Your task to perform on an android device: set the stopwatch Image 0: 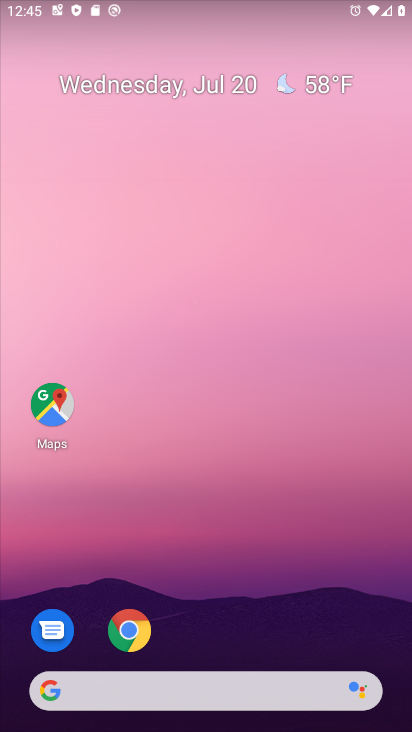
Step 0: drag from (185, 688) to (224, 116)
Your task to perform on an android device: set the stopwatch Image 1: 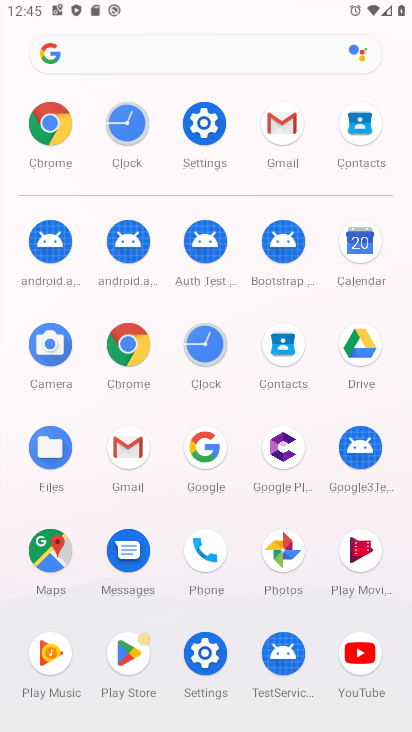
Step 1: click (209, 349)
Your task to perform on an android device: set the stopwatch Image 2: 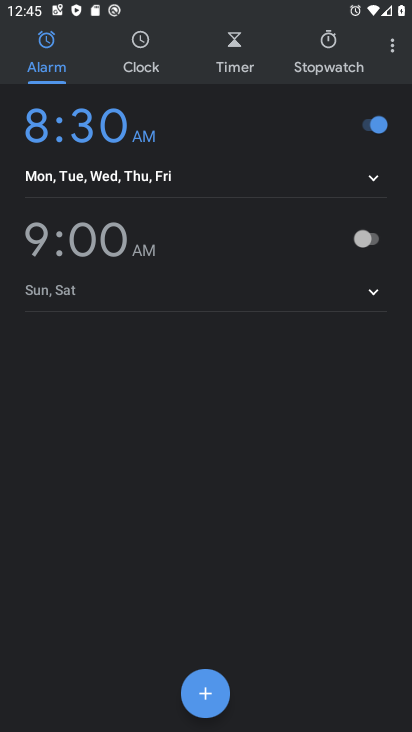
Step 2: click (320, 65)
Your task to perform on an android device: set the stopwatch Image 3: 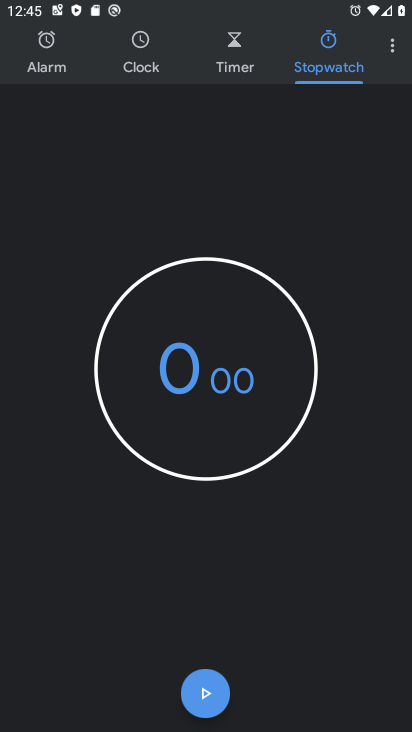
Step 3: click (198, 380)
Your task to perform on an android device: set the stopwatch Image 4: 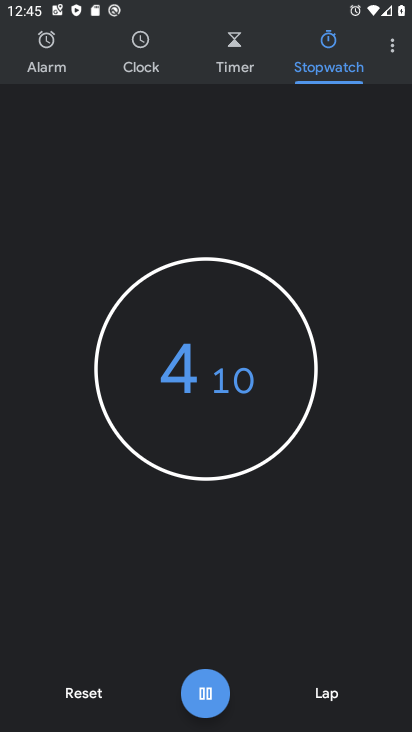
Step 4: click (212, 375)
Your task to perform on an android device: set the stopwatch Image 5: 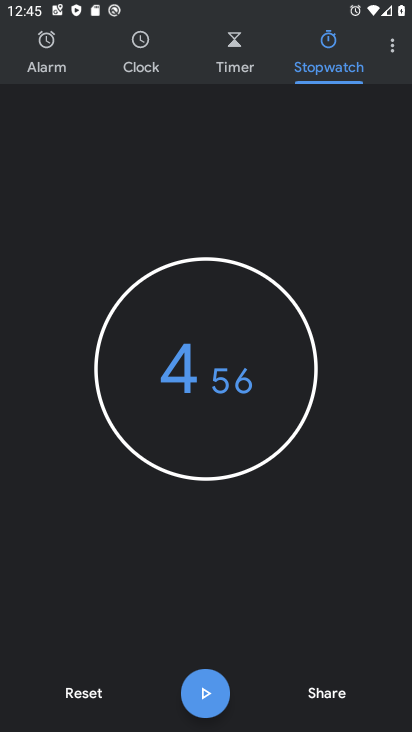
Step 5: task complete